Your task to perform on an android device: open wifi settings Image 0: 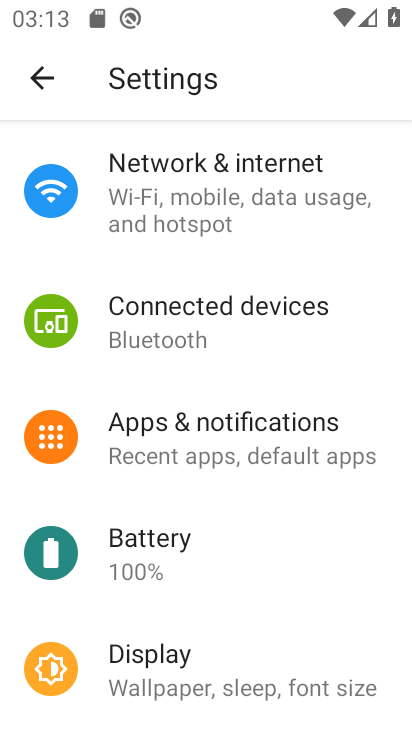
Step 0: drag from (260, 136) to (228, 696)
Your task to perform on an android device: open wifi settings Image 1: 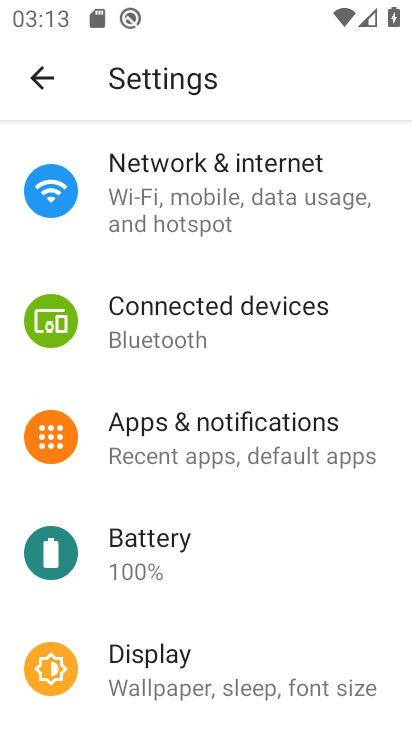
Step 1: click (262, 195)
Your task to perform on an android device: open wifi settings Image 2: 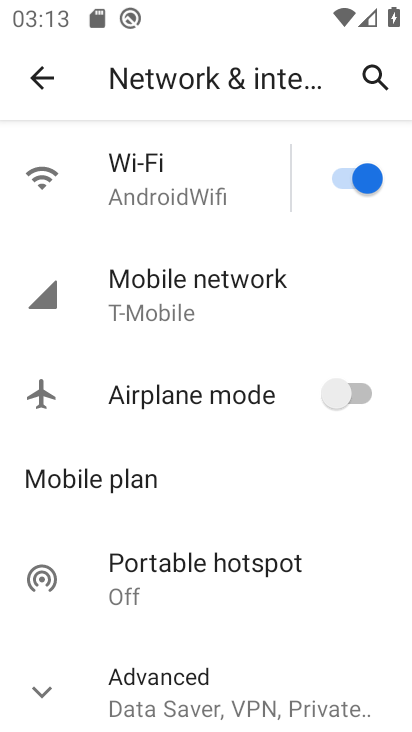
Step 2: click (191, 193)
Your task to perform on an android device: open wifi settings Image 3: 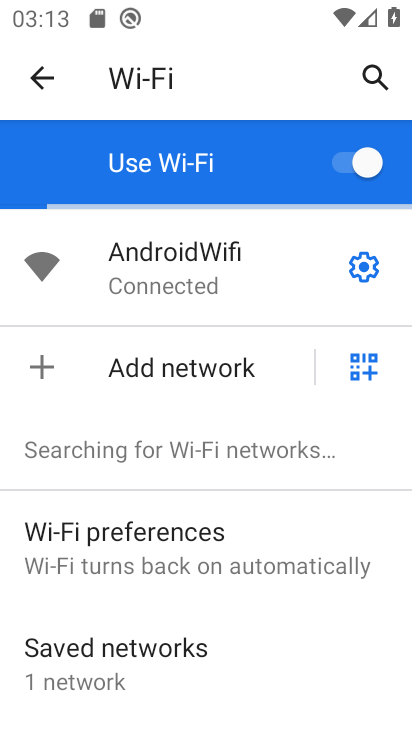
Step 3: task complete